Your task to perform on an android device: remove spam from my inbox in the gmail app Image 0: 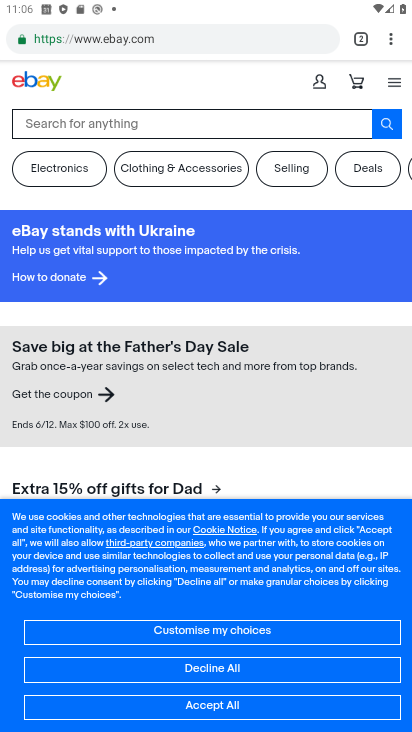
Step 0: press home button
Your task to perform on an android device: remove spam from my inbox in the gmail app Image 1: 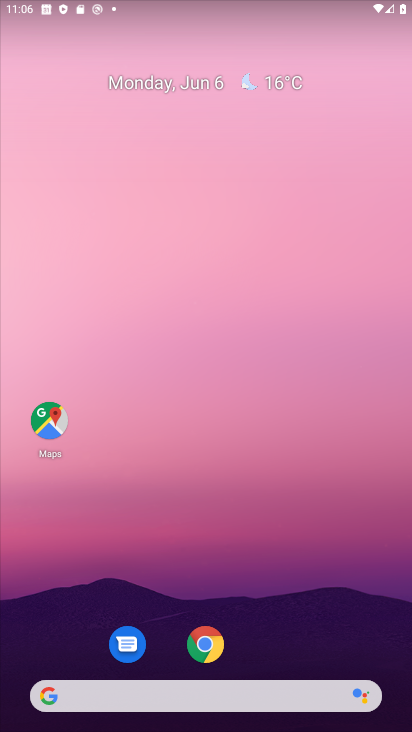
Step 1: drag from (291, 632) to (215, 88)
Your task to perform on an android device: remove spam from my inbox in the gmail app Image 2: 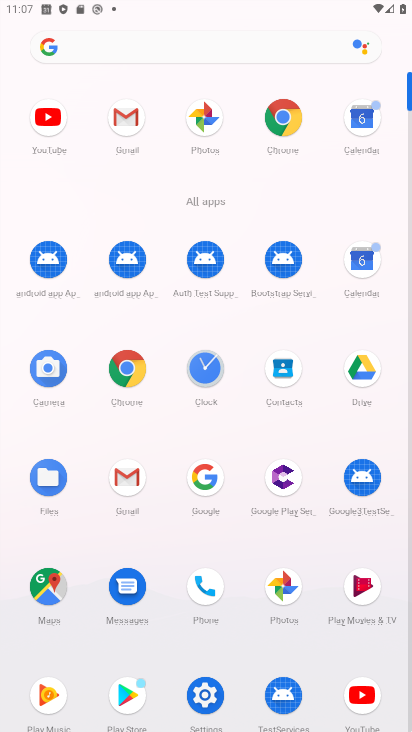
Step 2: click (137, 126)
Your task to perform on an android device: remove spam from my inbox in the gmail app Image 3: 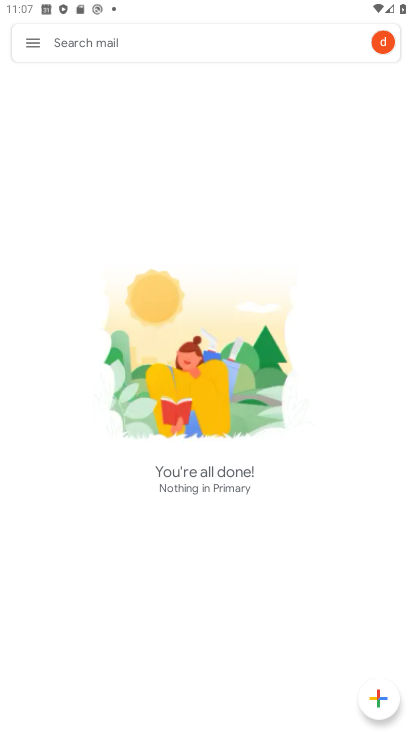
Step 3: click (44, 47)
Your task to perform on an android device: remove spam from my inbox in the gmail app Image 4: 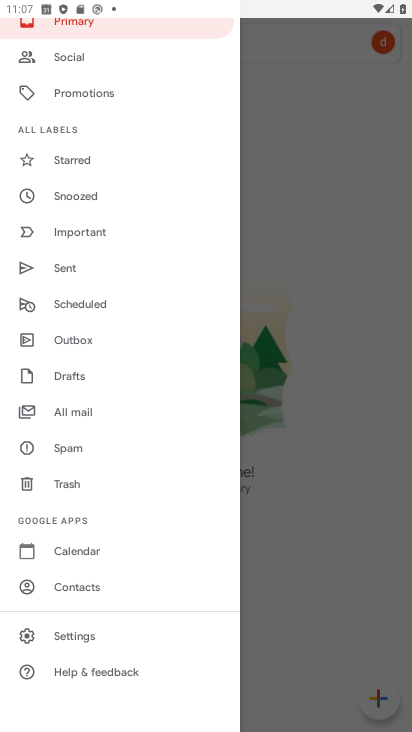
Step 4: click (121, 457)
Your task to perform on an android device: remove spam from my inbox in the gmail app Image 5: 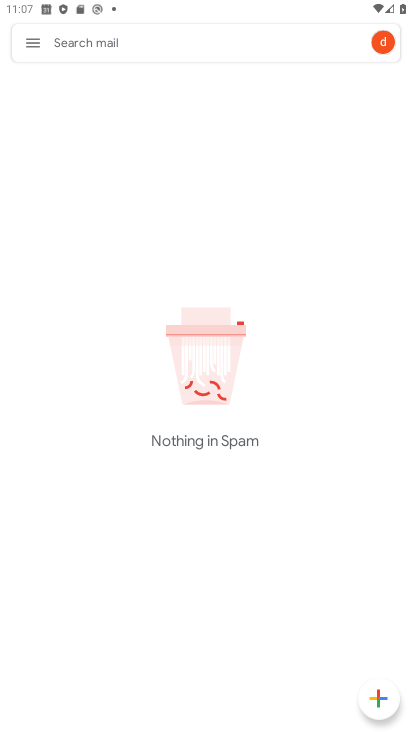
Step 5: task complete